Your task to perform on an android device: show emergency info Image 0: 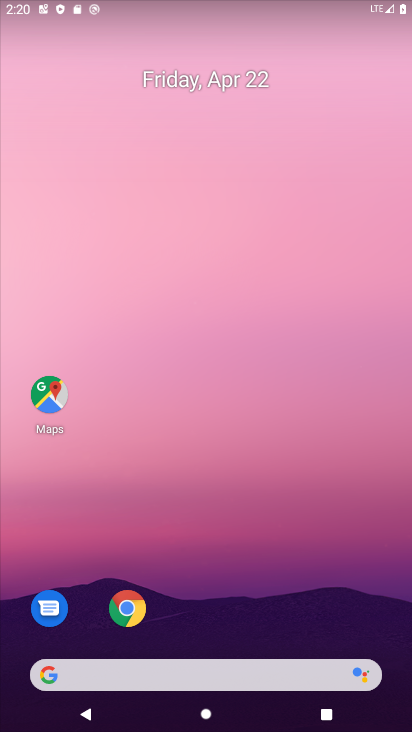
Step 0: drag from (255, 678) to (252, 146)
Your task to perform on an android device: show emergency info Image 1: 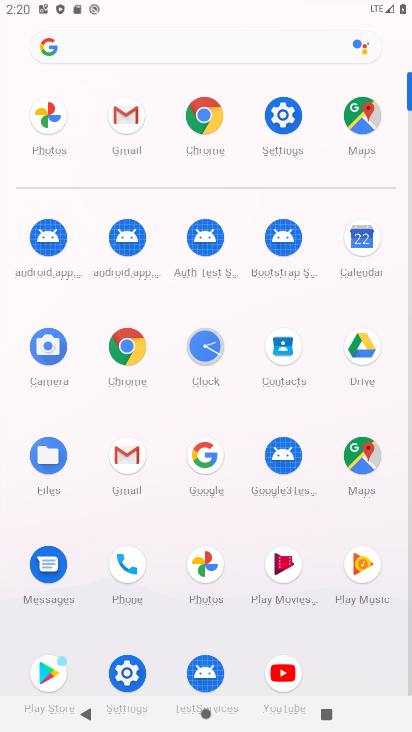
Step 1: click (279, 112)
Your task to perform on an android device: show emergency info Image 2: 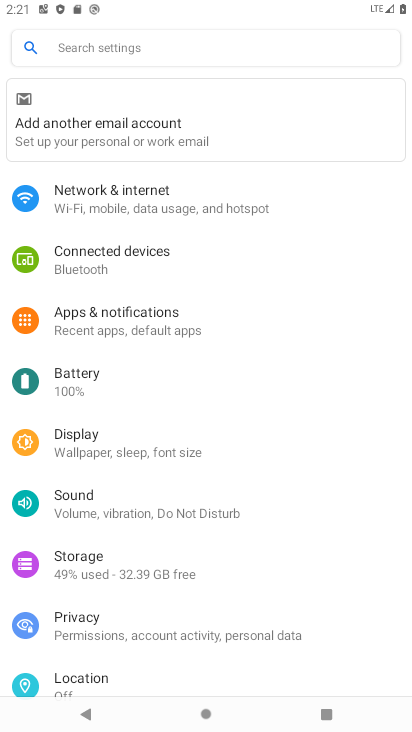
Step 2: click (170, 55)
Your task to perform on an android device: show emergency info Image 3: 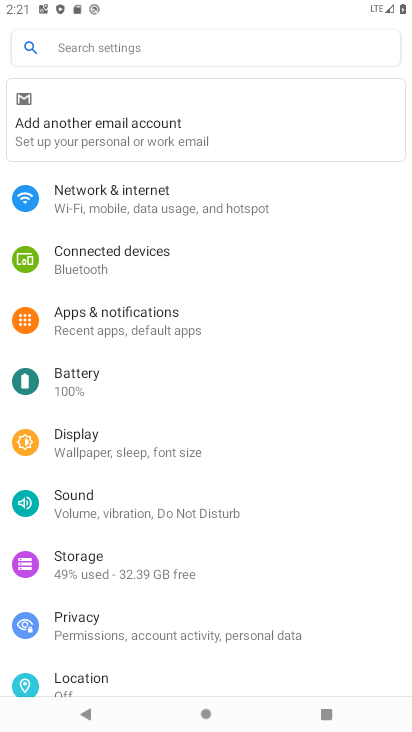
Step 3: click (156, 55)
Your task to perform on an android device: show emergency info Image 4: 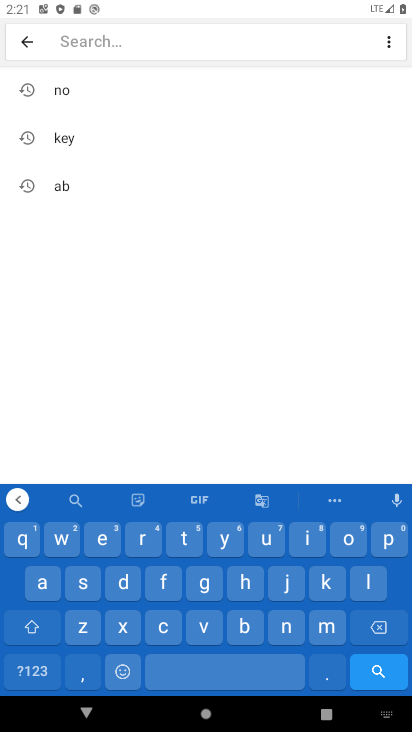
Step 4: click (103, 536)
Your task to perform on an android device: show emergency info Image 5: 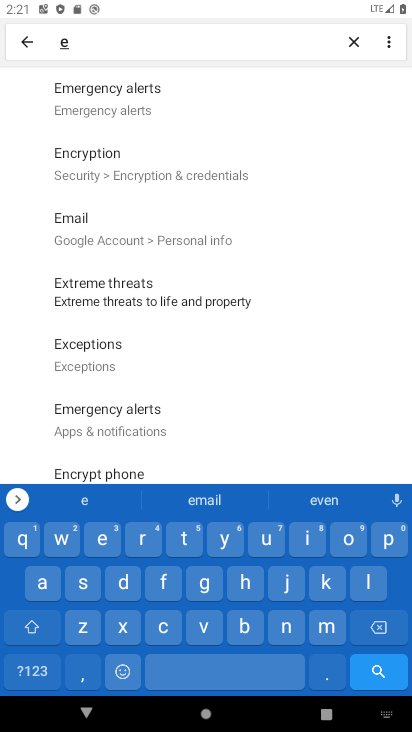
Step 5: click (327, 634)
Your task to perform on an android device: show emergency info Image 6: 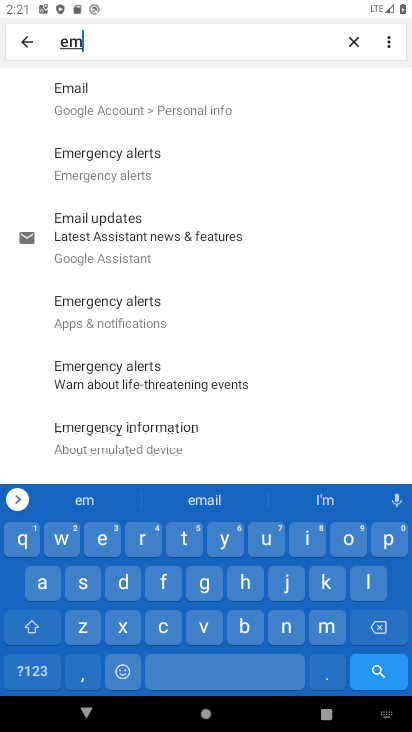
Step 6: click (108, 543)
Your task to perform on an android device: show emergency info Image 7: 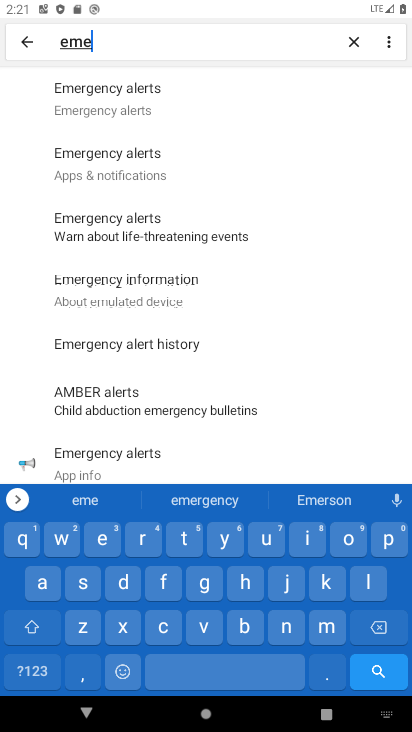
Step 7: click (197, 493)
Your task to perform on an android device: show emergency info Image 8: 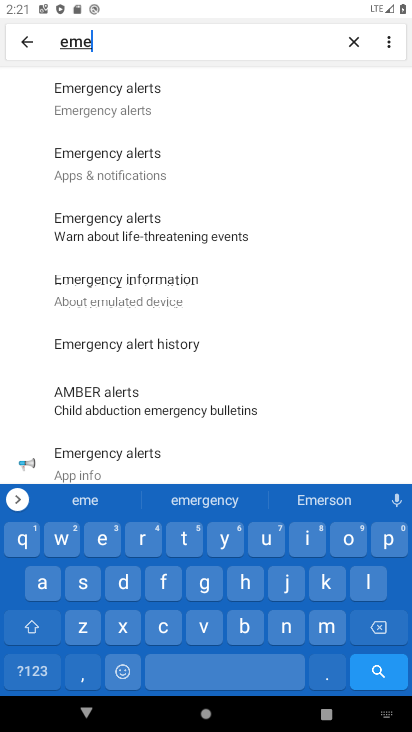
Step 8: drag from (178, 371) to (204, 293)
Your task to perform on an android device: show emergency info Image 9: 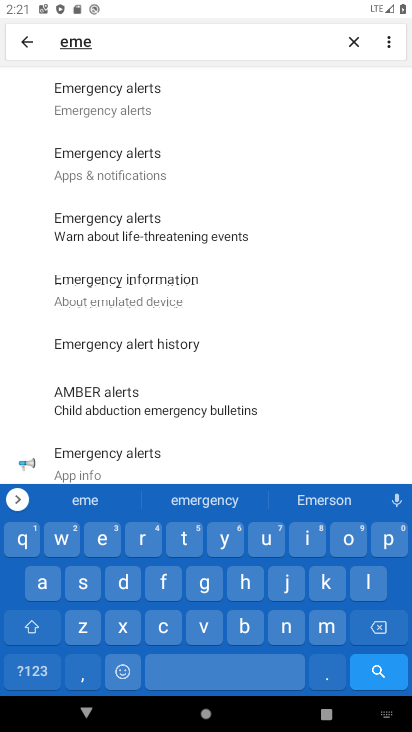
Step 9: click (204, 288)
Your task to perform on an android device: show emergency info Image 10: 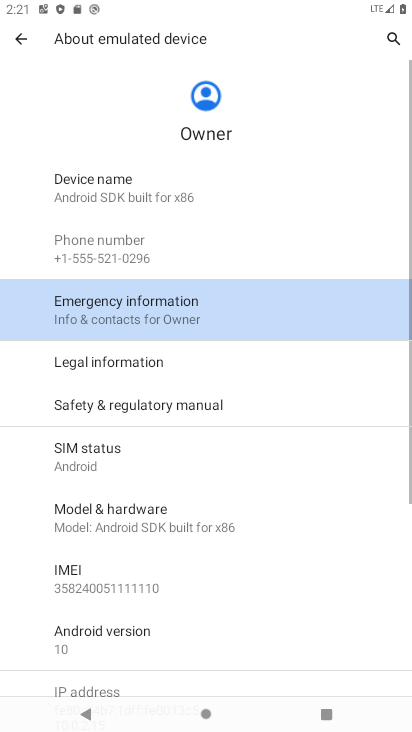
Step 10: click (198, 298)
Your task to perform on an android device: show emergency info Image 11: 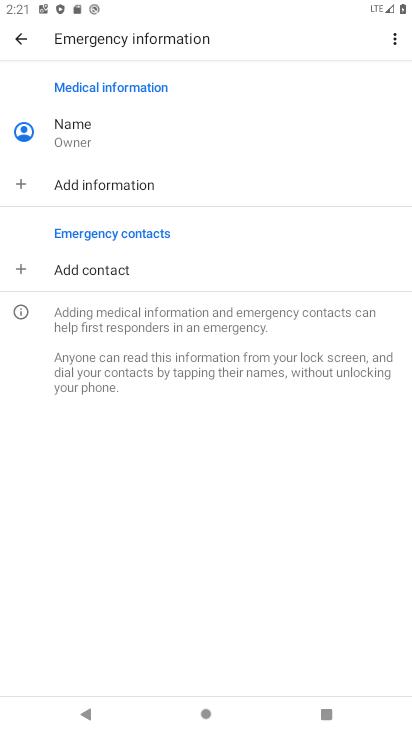
Step 11: task complete